Your task to perform on an android device: change the clock style Image 0: 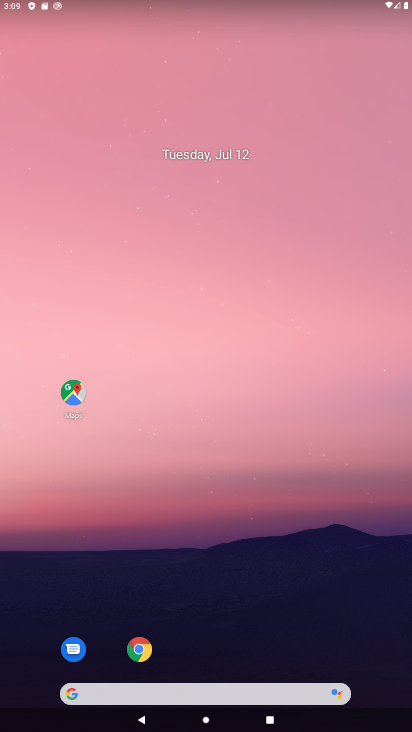
Step 0: drag from (229, 661) to (275, 58)
Your task to perform on an android device: change the clock style Image 1: 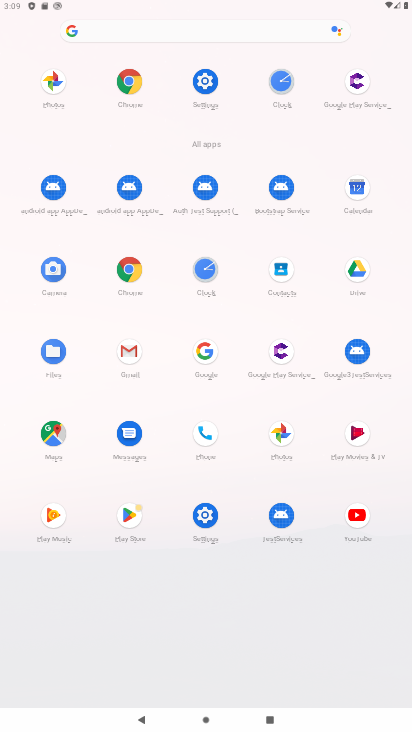
Step 1: click (198, 266)
Your task to perform on an android device: change the clock style Image 2: 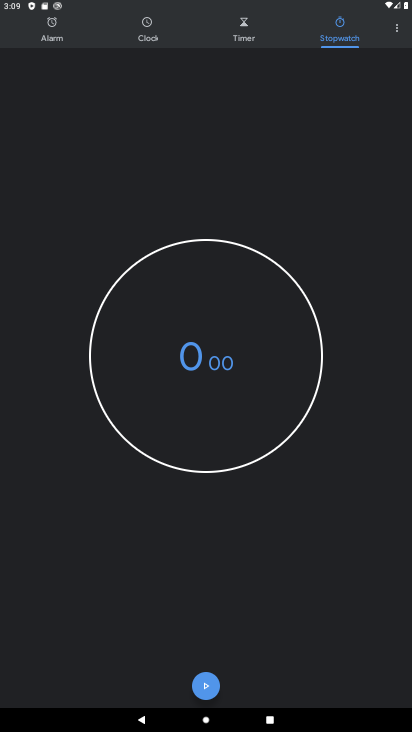
Step 2: click (394, 20)
Your task to perform on an android device: change the clock style Image 3: 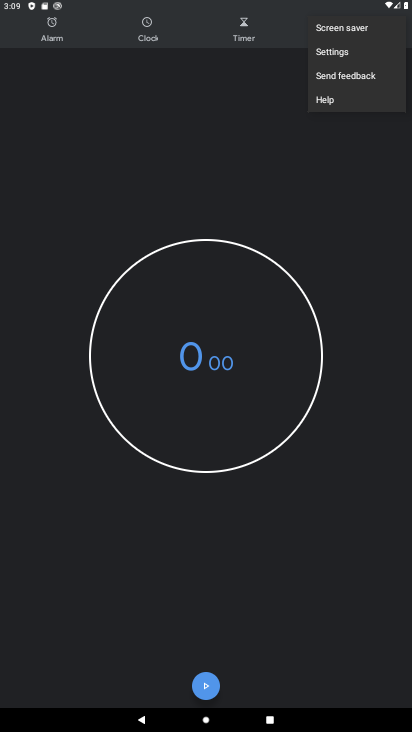
Step 3: click (355, 52)
Your task to perform on an android device: change the clock style Image 4: 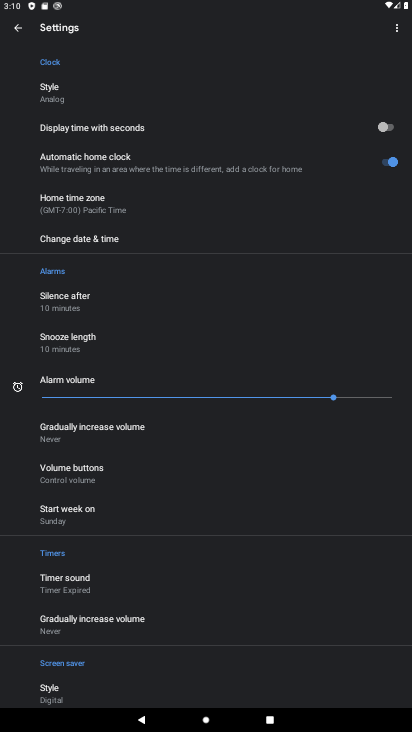
Step 4: click (88, 85)
Your task to perform on an android device: change the clock style Image 5: 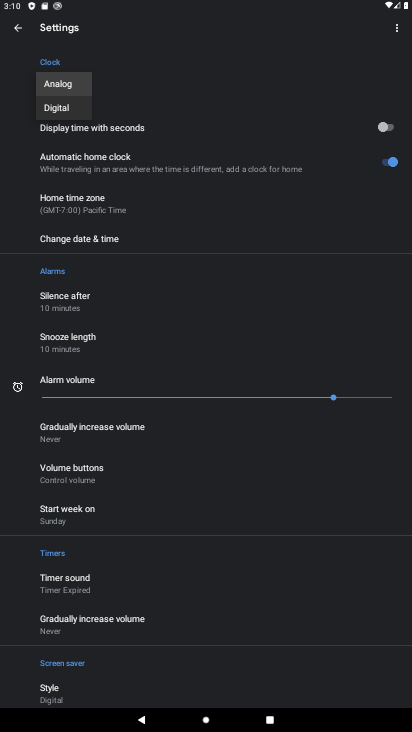
Step 5: click (67, 104)
Your task to perform on an android device: change the clock style Image 6: 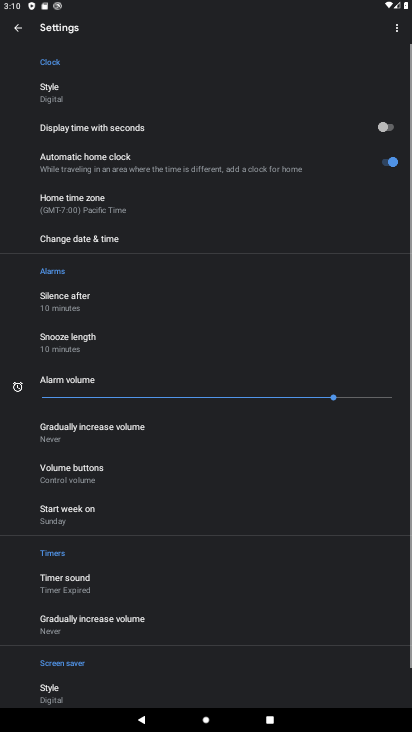
Step 6: task complete